Your task to perform on an android device: uninstall "The Home Depot" Image 0: 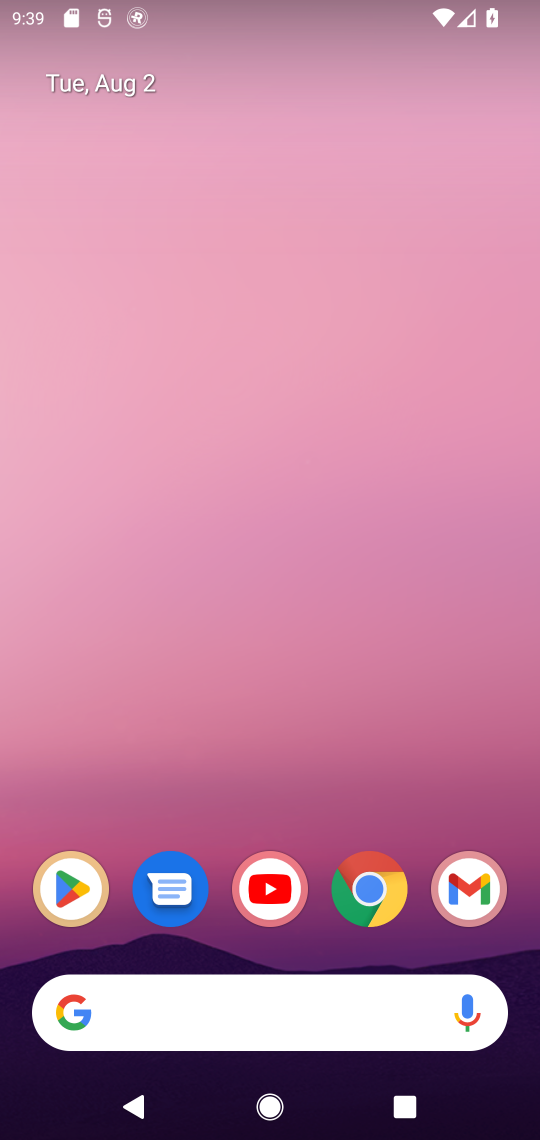
Step 0: click (66, 899)
Your task to perform on an android device: uninstall "The Home Depot" Image 1: 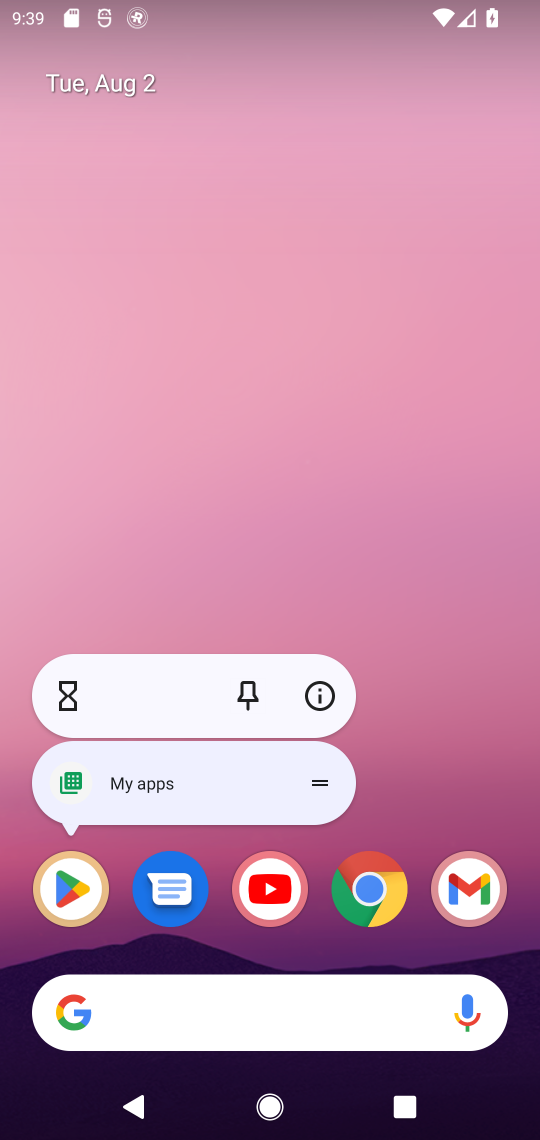
Step 1: click (72, 889)
Your task to perform on an android device: uninstall "The Home Depot" Image 2: 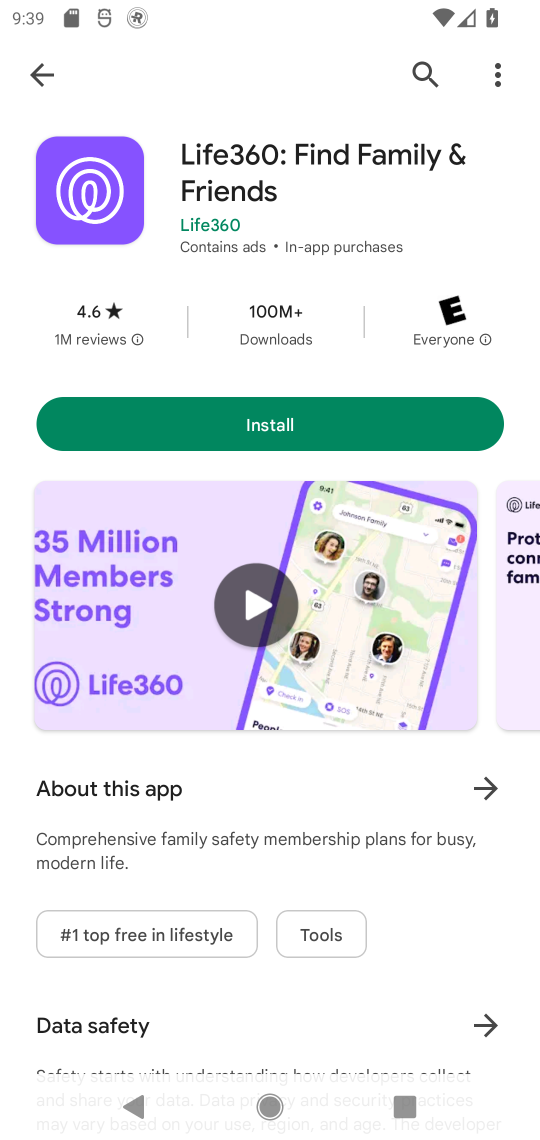
Step 2: click (425, 66)
Your task to perform on an android device: uninstall "The Home Depot" Image 3: 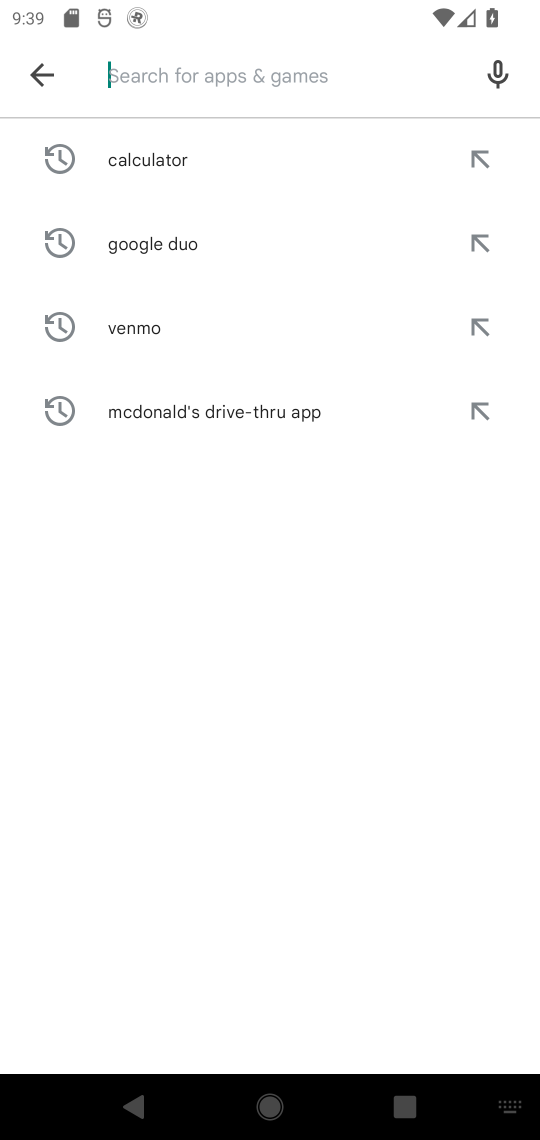
Step 3: type "The Home Depot"
Your task to perform on an android device: uninstall "The Home Depot" Image 4: 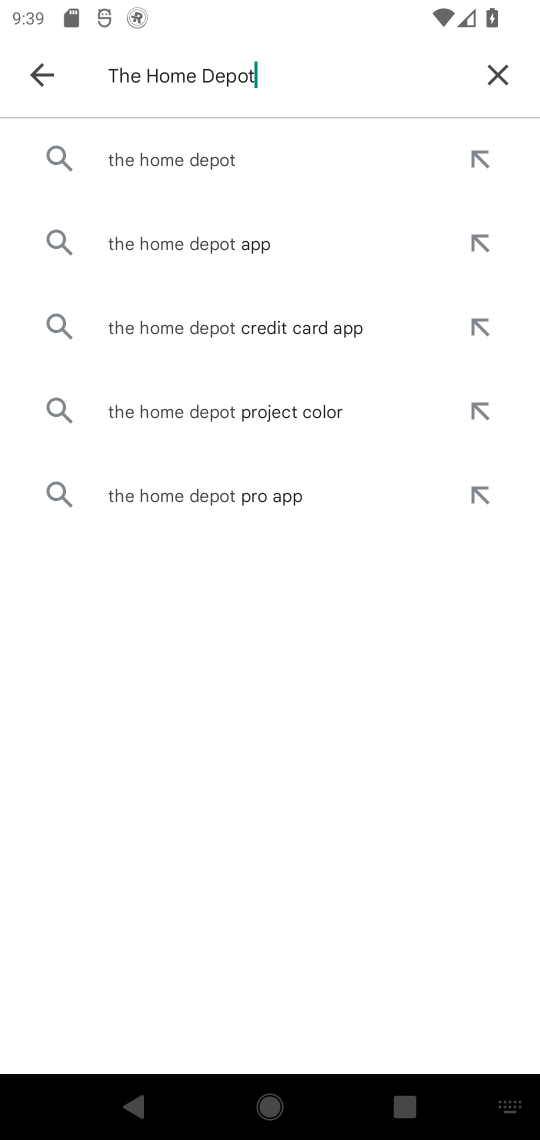
Step 4: click (205, 163)
Your task to perform on an android device: uninstall "The Home Depot" Image 5: 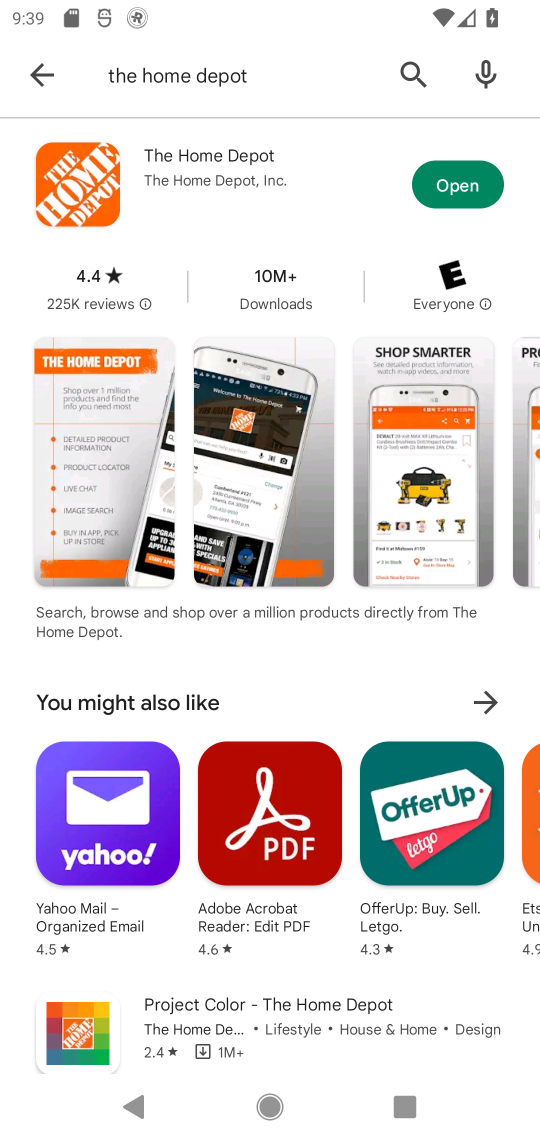
Step 5: click (159, 176)
Your task to perform on an android device: uninstall "The Home Depot" Image 6: 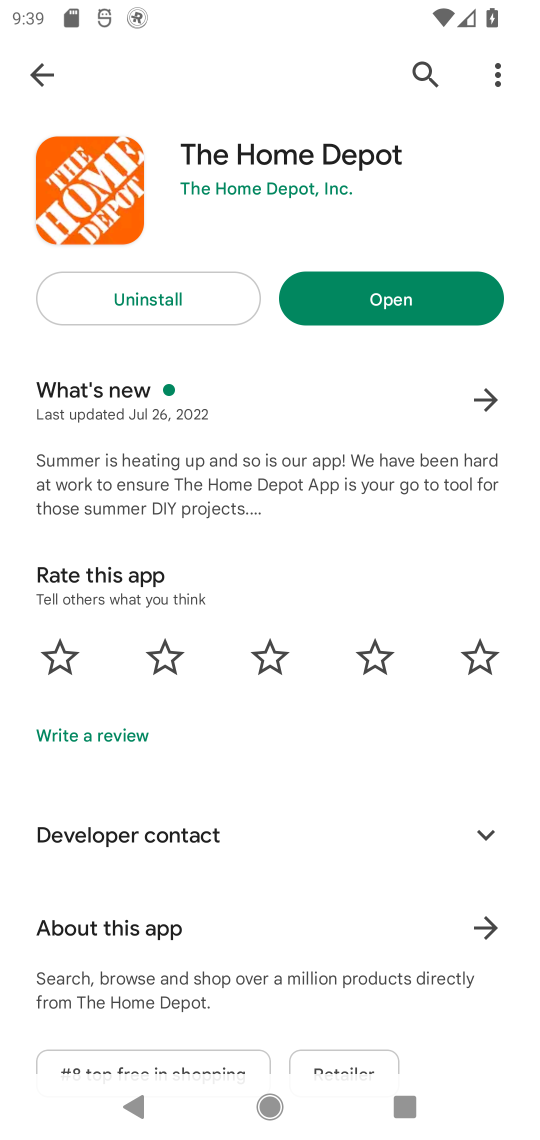
Step 6: click (181, 300)
Your task to perform on an android device: uninstall "The Home Depot" Image 7: 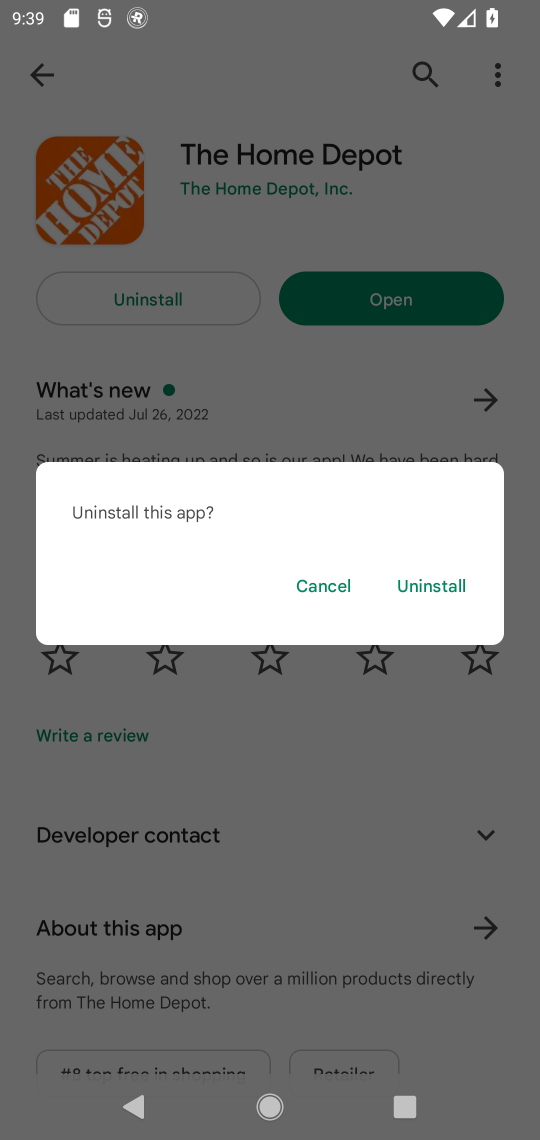
Step 7: click (417, 590)
Your task to perform on an android device: uninstall "The Home Depot" Image 8: 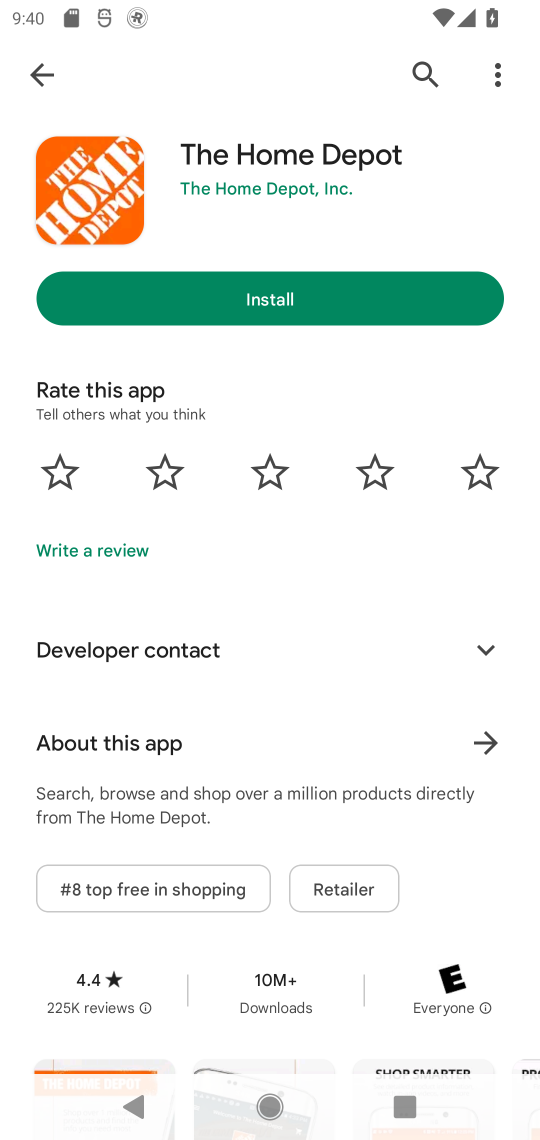
Step 8: task complete